Your task to perform on an android device: Open network settings Image 0: 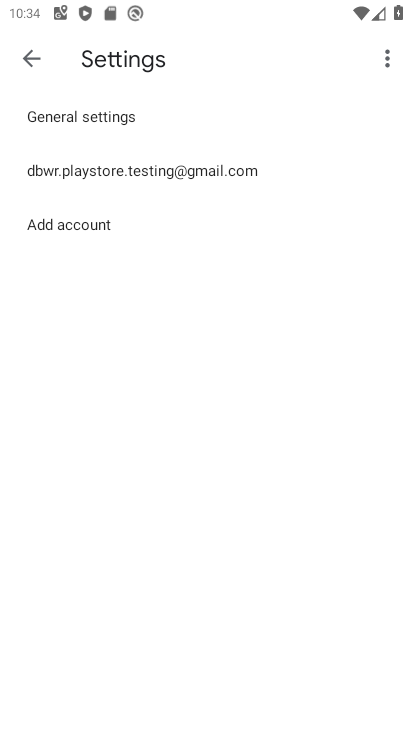
Step 0: press home button
Your task to perform on an android device: Open network settings Image 1: 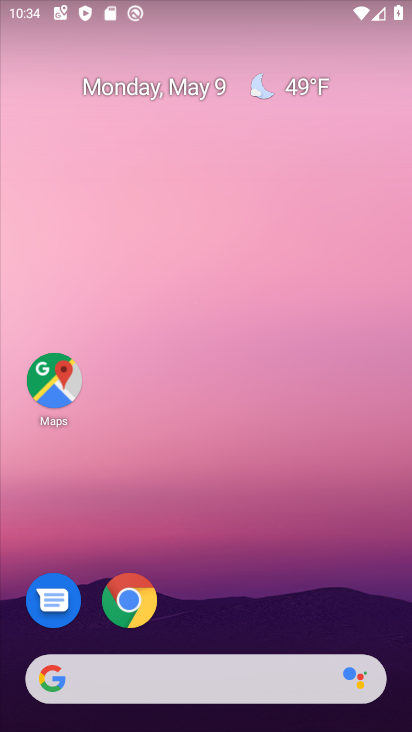
Step 1: drag from (359, 594) to (354, 194)
Your task to perform on an android device: Open network settings Image 2: 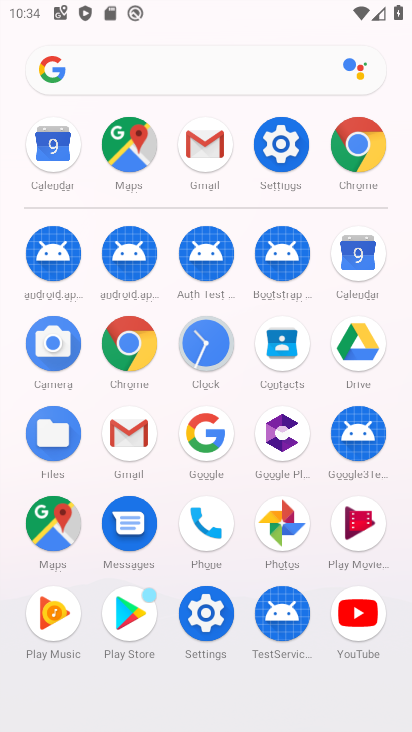
Step 2: click (264, 173)
Your task to perform on an android device: Open network settings Image 3: 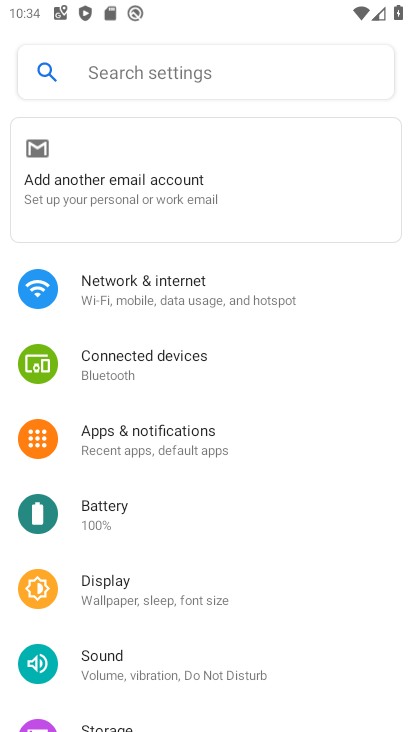
Step 3: click (189, 281)
Your task to perform on an android device: Open network settings Image 4: 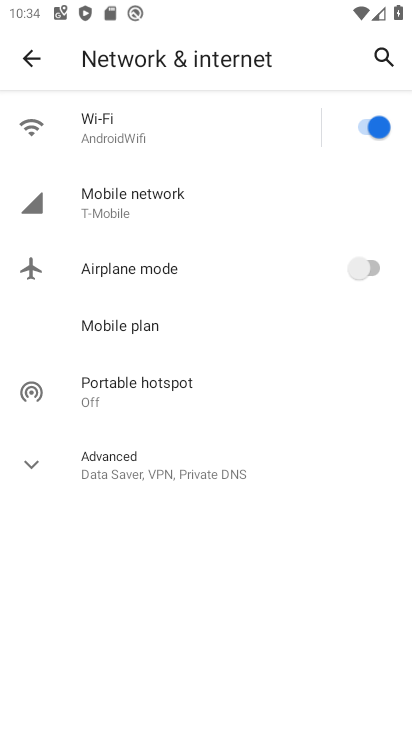
Step 4: task complete